Your task to perform on an android device: Open Youtube and go to the subscriptions tab Image 0: 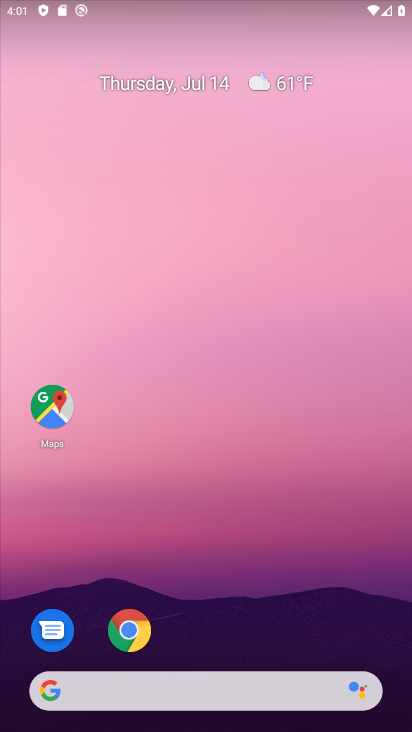
Step 0: drag from (257, 660) to (228, 109)
Your task to perform on an android device: Open Youtube and go to the subscriptions tab Image 1: 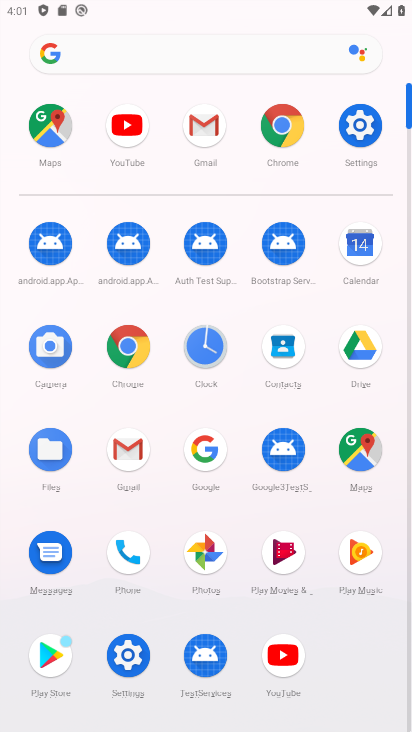
Step 1: click (129, 124)
Your task to perform on an android device: Open Youtube and go to the subscriptions tab Image 2: 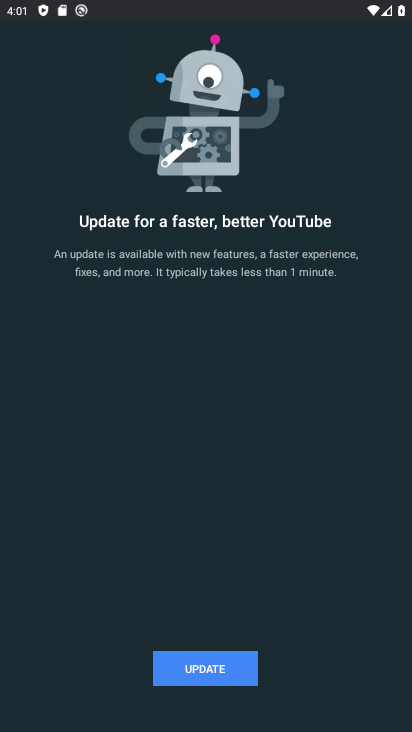
Step 2: click (225, 671)
Your task to perform on an android device: Open Youtube and go to the subscriptions tab Image 3: 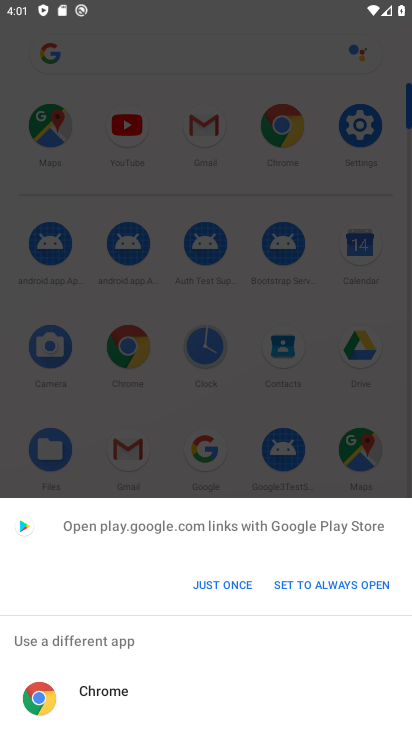
Step 3: click (215, 591)
Your task to perform on an android device: Open Youtube and go to the subscriptions tab Image 4: 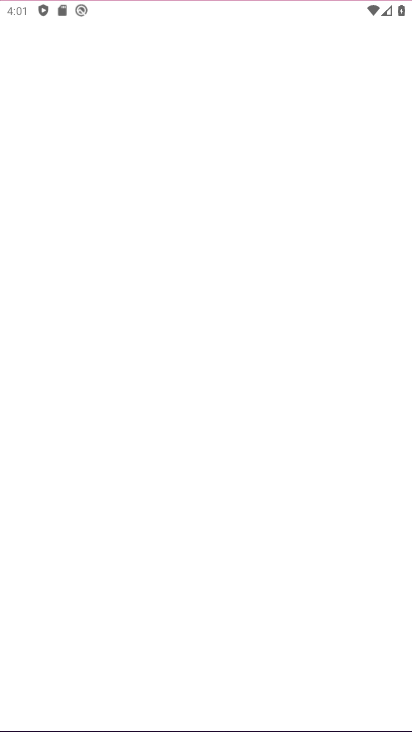
Step 4: click (221, 582)
Your task to perform on an android device: Open Youtube and go to the subscriptions tab Image 5: 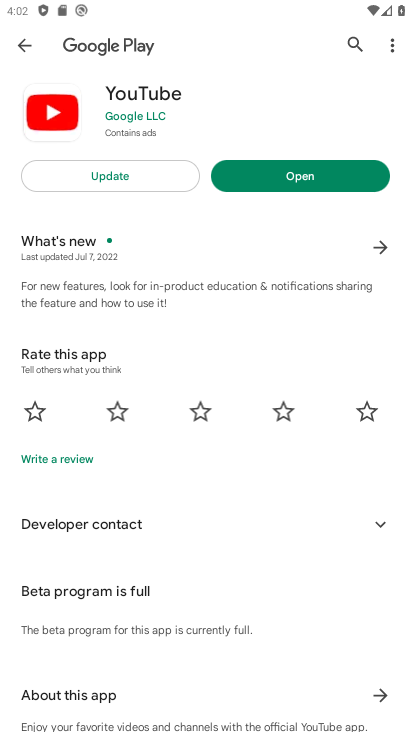
Step 5: click (149, 177)
Your task to perform on an android device: Open Youtube and go to the subscriptions tab Image 6: 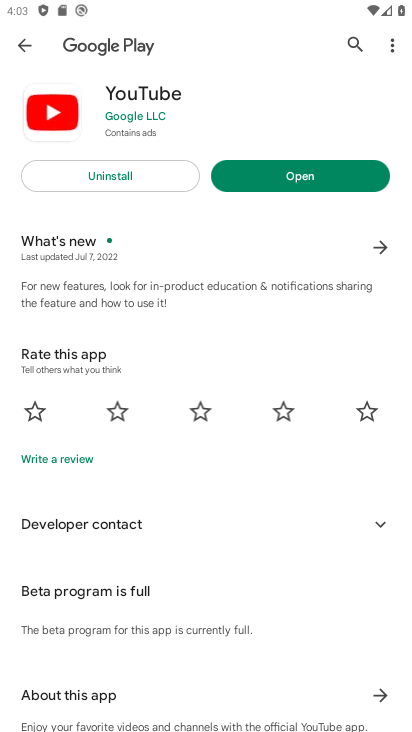
Step 6: click (347, 185)
Your task to perform on an android device: Open Youtube and go to the subscriptions tab Image 7: 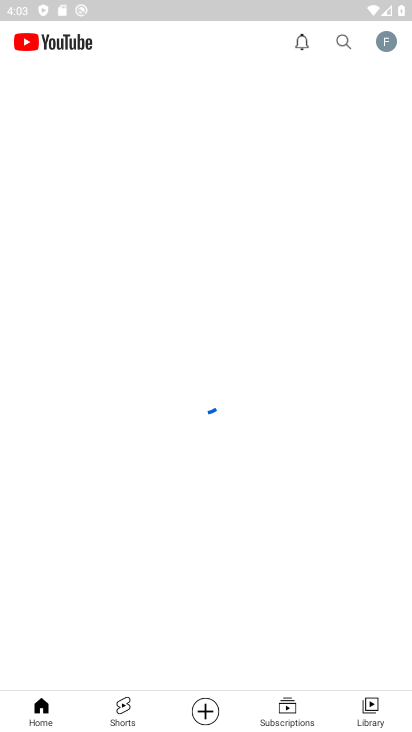
Step 7: click (265, 708)
Your task to perform on an android device: Open Youtube and go to the subscriptions tab Image 8: 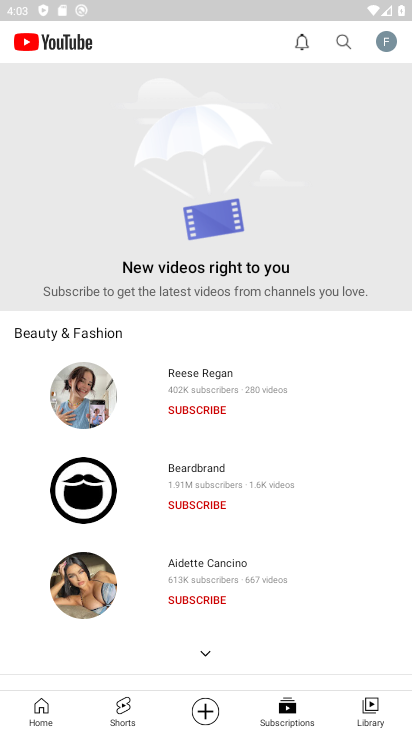
Step 8: task complete